Your task to perform on an android device: Go to eBay Image 0: 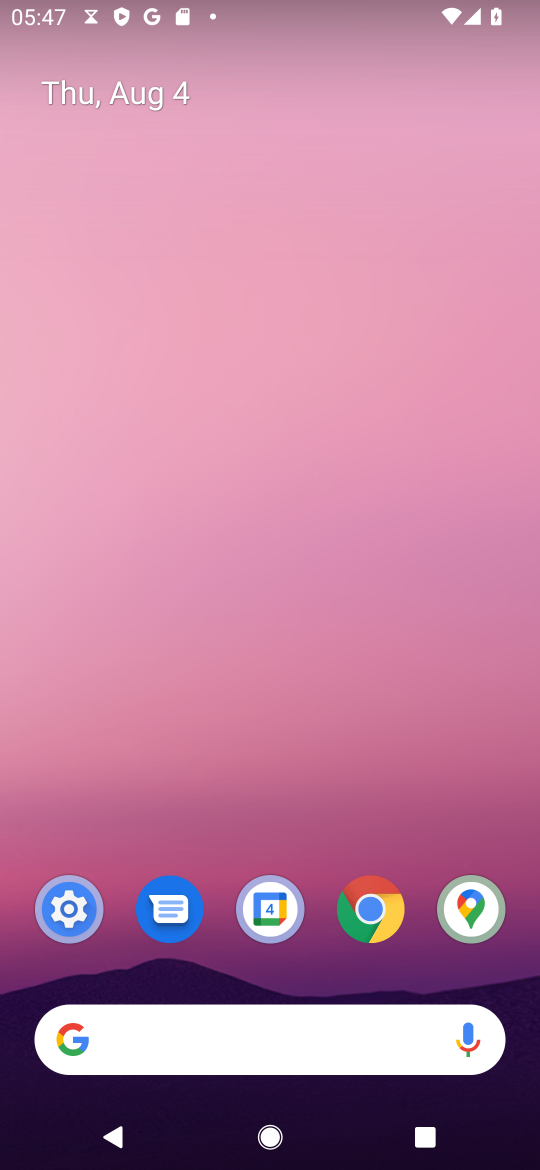
Step 0: click (371, 908)
Your task to perform on an android device: Go to eBay Image 1: 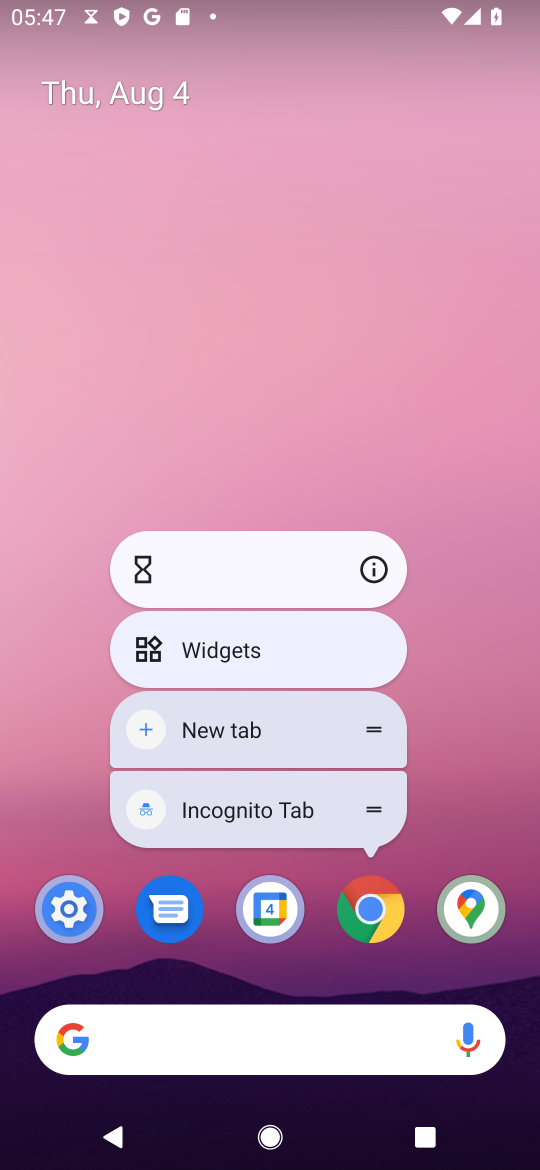
Step 1: click (371, 908)
Your task to perform on an android device: Go to eBay Image 2: 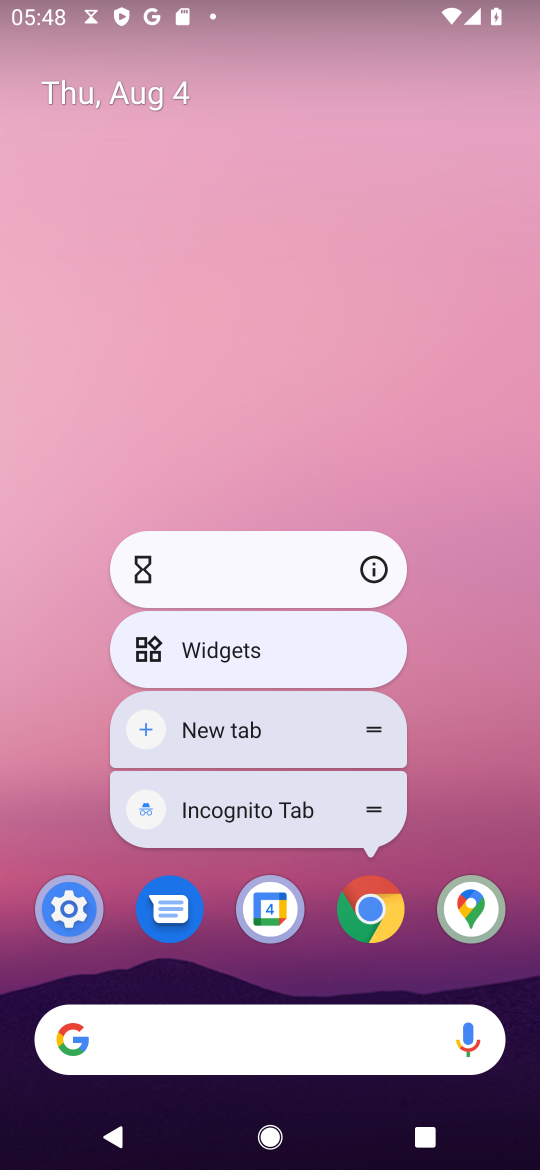
Step 2: click (371, 912)
Your task to perform on an android device: Go to eBay Image 3: 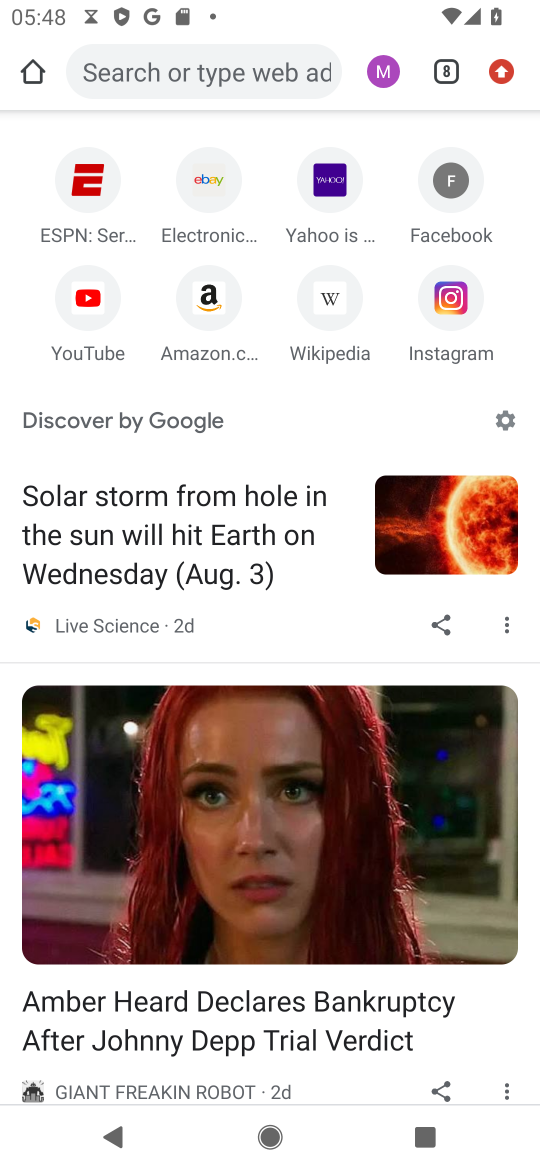
Step 3: click (206, 190)
Your task to perform on an android device: Go to eBay Image 4: 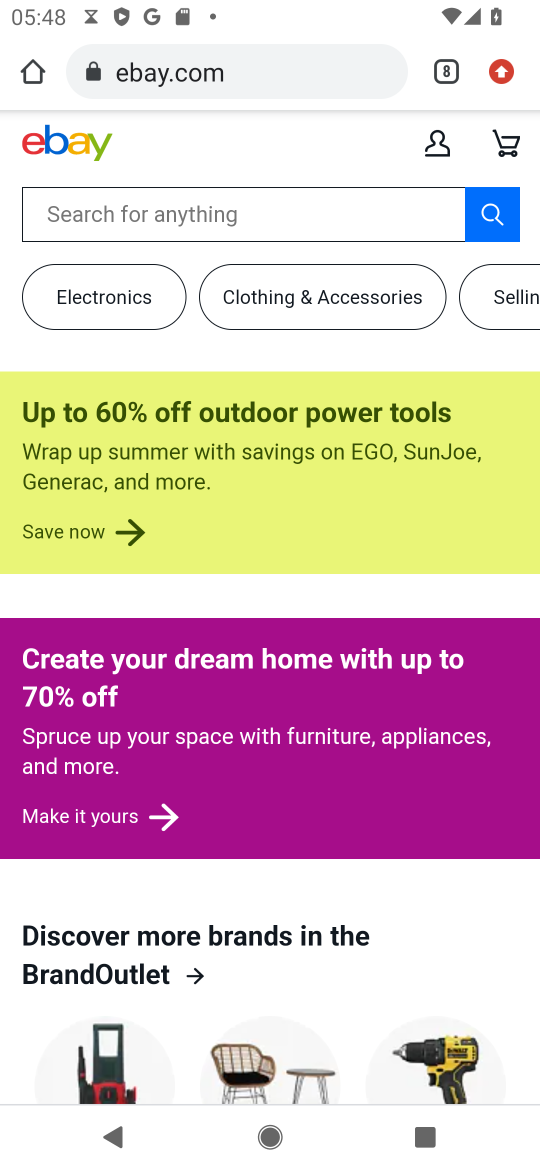
Step 4: task complete